Your task to perform on an android device: Open settings Image 0: 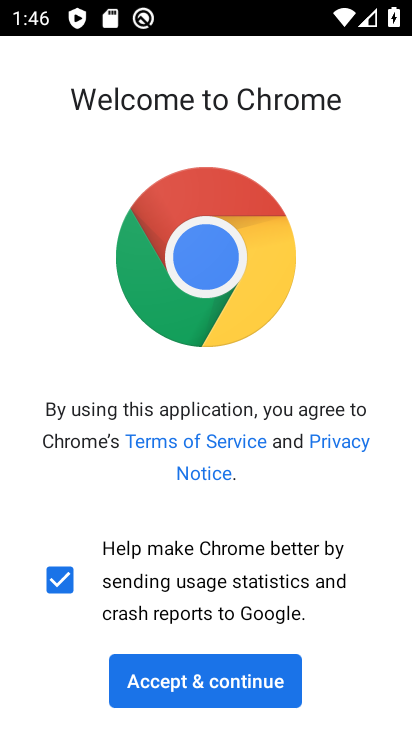
Step 0: press home button
Your task to perform on an android device: Open settings Image 1: 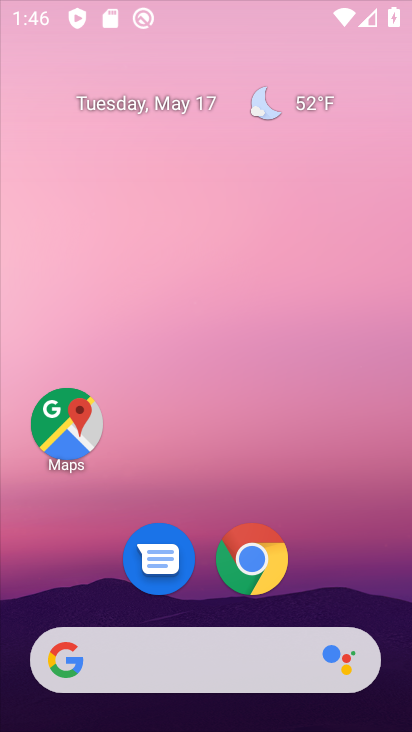
Step 1: drag from (223, 724) to (232, 138)
Your task to perform on an android device: Open settings Image 2: 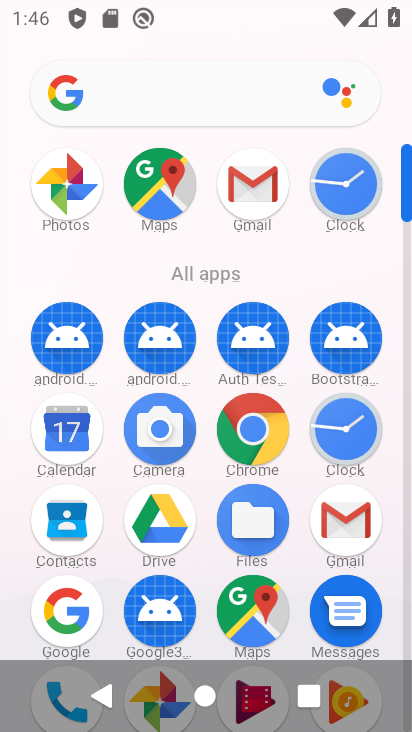
Step 2: drag from (210, 460) to (216, 141)
Your task to perform on an android device: Open settings Image 3: 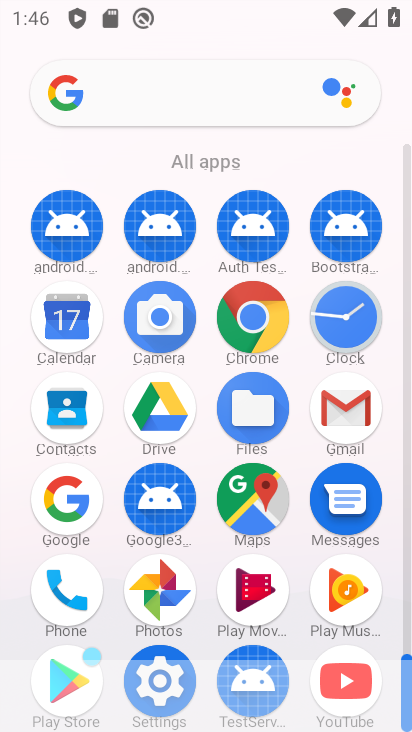
Step 3: click (162, 660)
Your task to perform on an android device: Open settings Image 4: 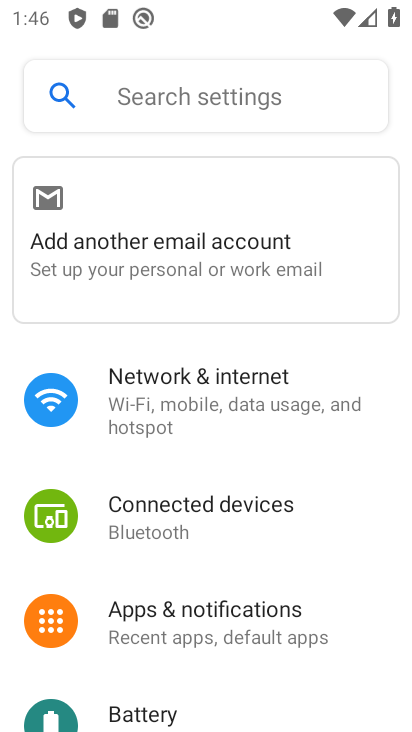
Step 4: task complete